Your task to perform on an android device: change notification settings in the gmail app Image 0: 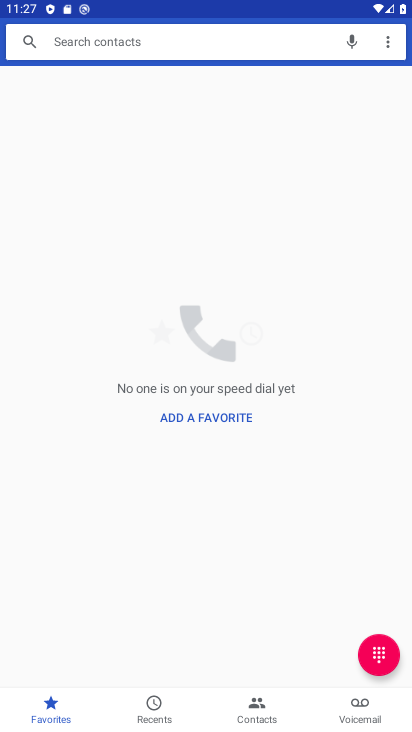
Step 0: drag from (182, 640) to (188, 150)
Your task to perform on an android device: change notification settings in the gmail app Image 1: 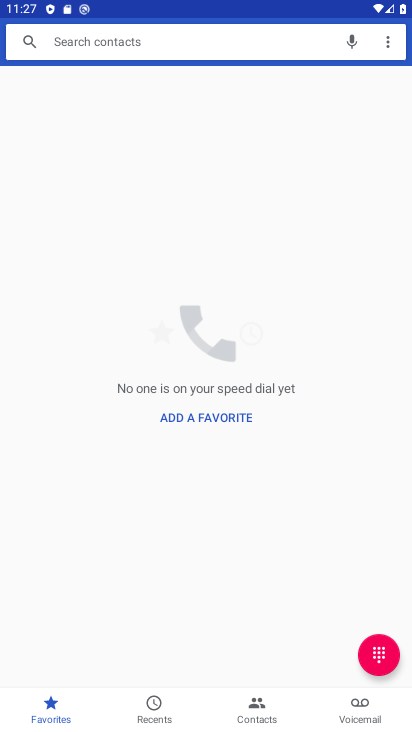
Step 1: press home button
Your task to perform on an android device: change notification settings in the gmail app Image 2: 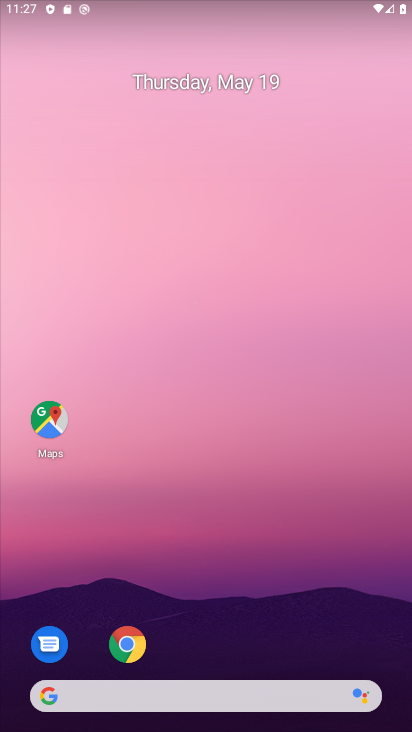
Step 2: drag from (223, 668) to (178, 74)
Your task to perform on an android device: change notification settings in the gmail app Image 3: 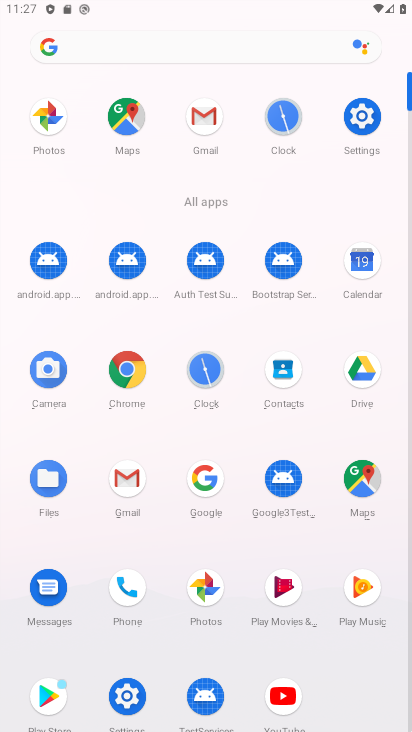
Step 3: click (124, 489)
Your task to perform on an android device: change notification settings in the gmail app Image 4: 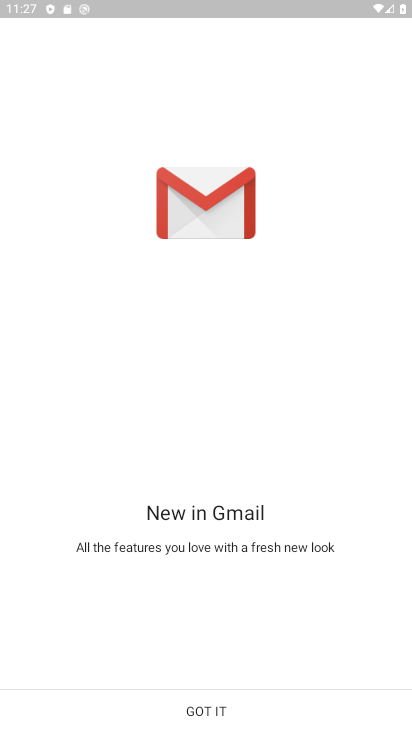
Step 4: click (202, 686)
Your task to perform on an android device: change notification settings in the gmail app Image 5: 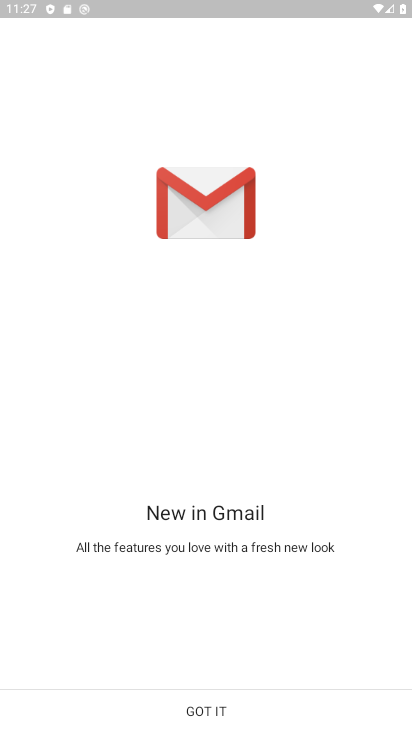
Step 5: click (200, 701)
Your task to perform on an android device: change notification settings in the gmail app Image 6: 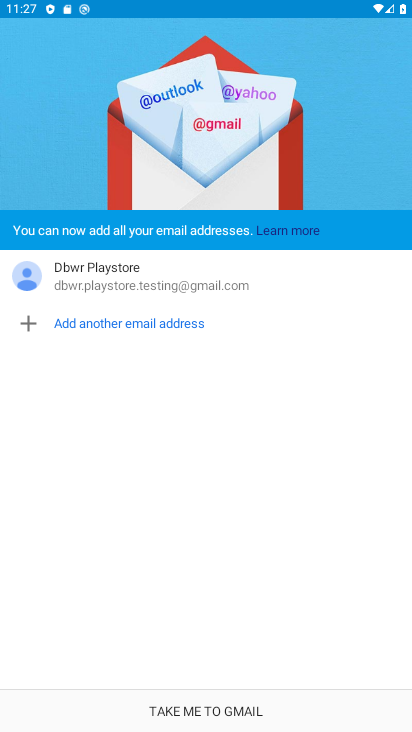
Step 6: click (213, 706)
Your task to perform on an android device: change notification settings in the gmail app Image 7: 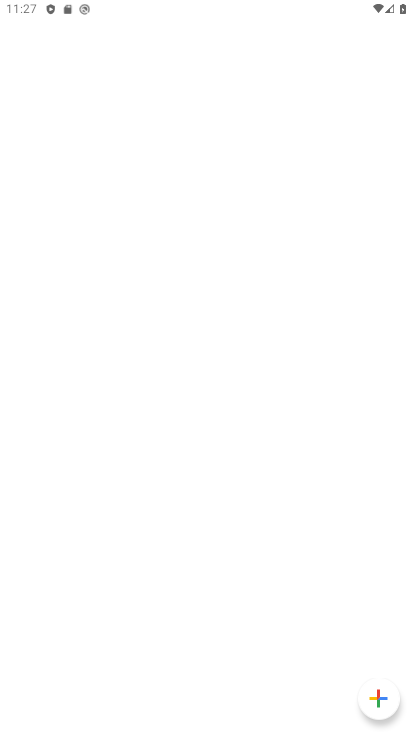
Step 7: drag from (232, 719) to (174, 388)
Your task to perform on an android device: change notification settings in the gmail app Image 8: 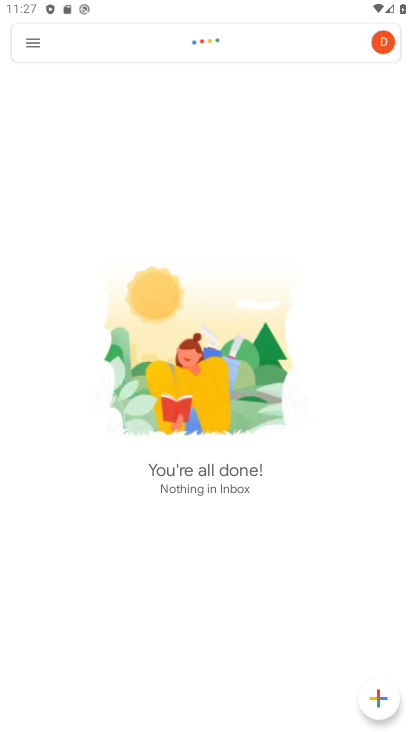
Step 8: click (21, 45)
Your task to perform on an android device: change notification settings in the gmail app Image 9: 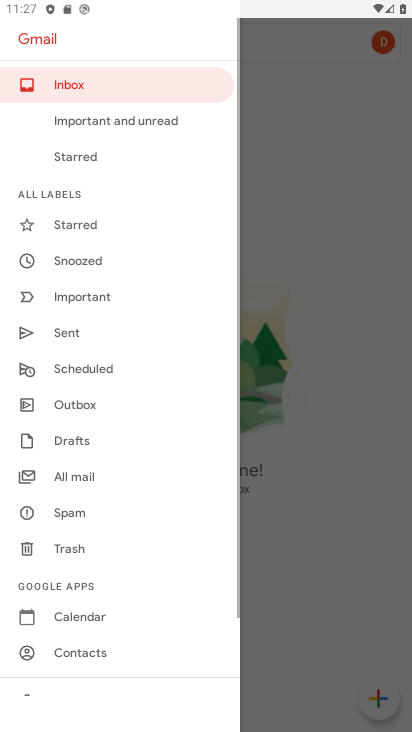
Step 9: drag from (128, 597) to (128, 228)
Your task to perform on an android device: change notification settings in the gmail app Image 10: 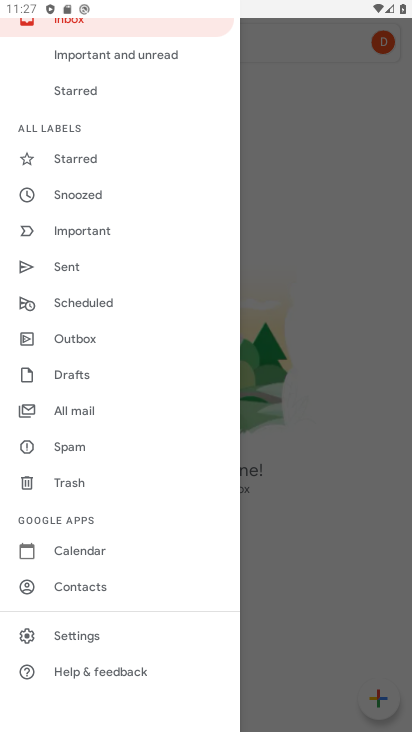
Step 10: click (81, 642)
Your task to perform on an android device: change notification settings in the gmail app Image 11: 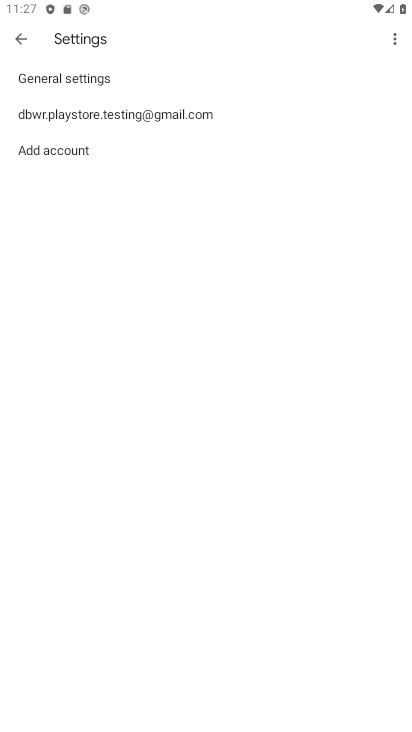
Step 11: drag from (102, 123) to (127, 416)
Your task to perform on an android device: change notification settings in the gmail app Image 12: 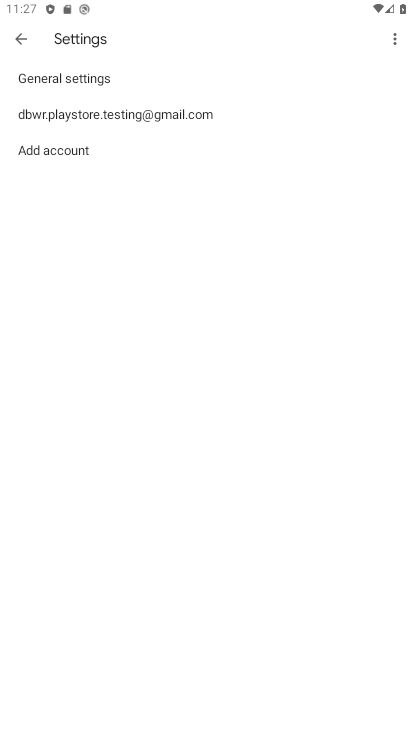
Step 12: click (63, 81)
Your task to perform on an android device: change notification settings in the gmail app Image 13: 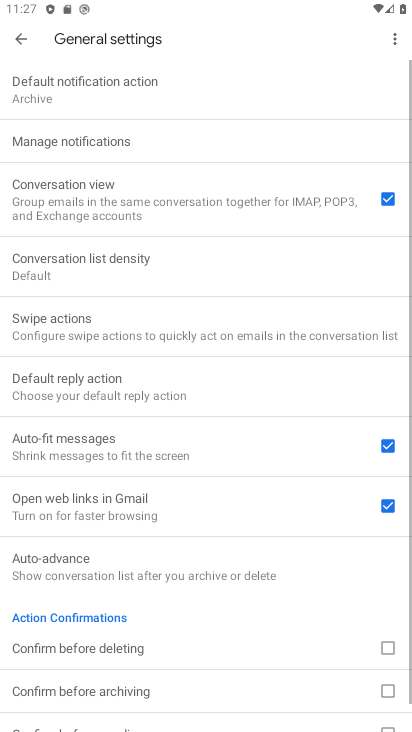
Step 13: click (64, 152)
Your task to perform on an android device: change notification settings in the gmail app Image 14: 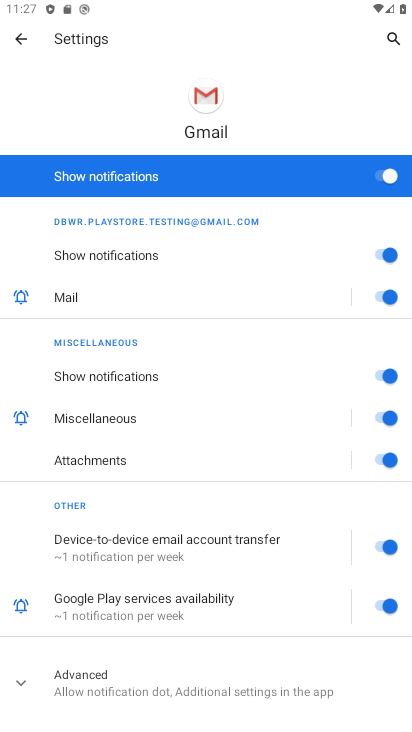
Step 14: click (397, 173)
Your task to perform on an android device: change notification settings in the gmail app Image 15: 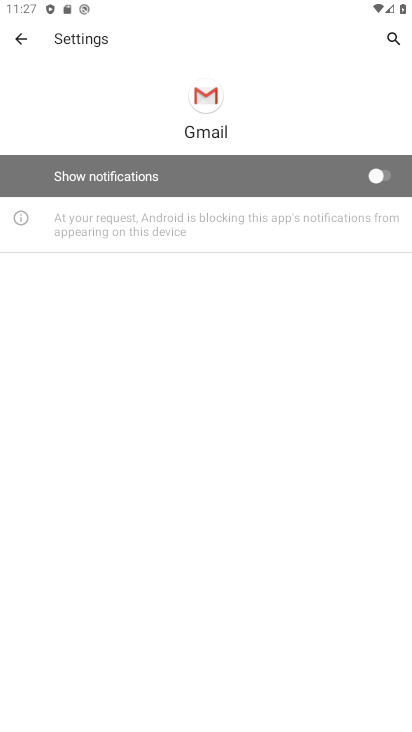
Step 15: task complete